Your task to perform on an android device: change alarm snooze length Image 0: 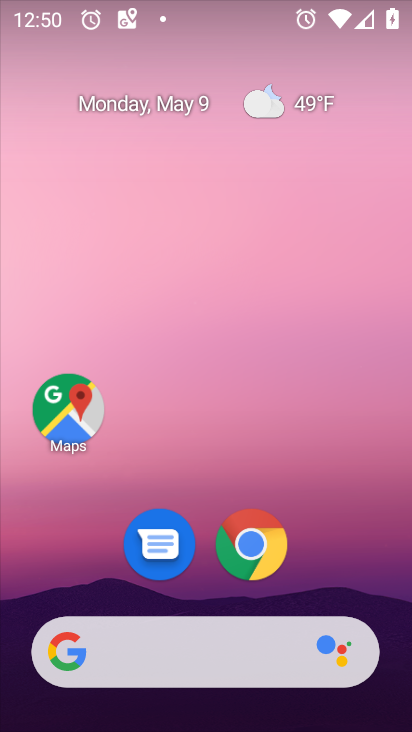
Step 0: drag from (227, 637) to (322, 28)
Your task to perform on an android device: change alarm snooze length Image 1: 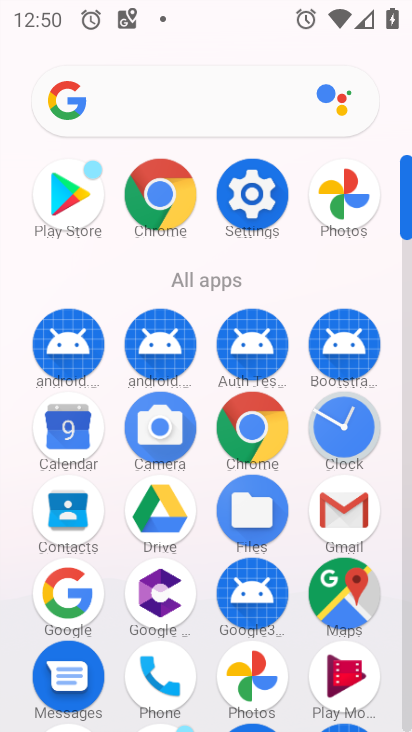
Step 1: click (335, 431)
Your task to perform on an android device: change alarm snooze length Image 2: 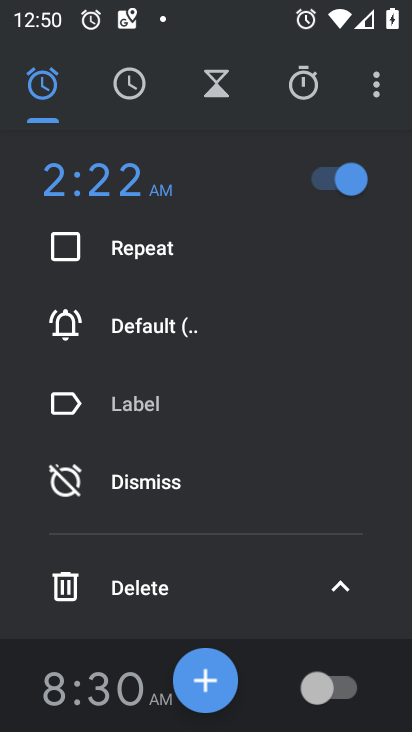
Step 2: click (379, 81)
Your task to perform on an android device: change alarm snooze length Image 3: 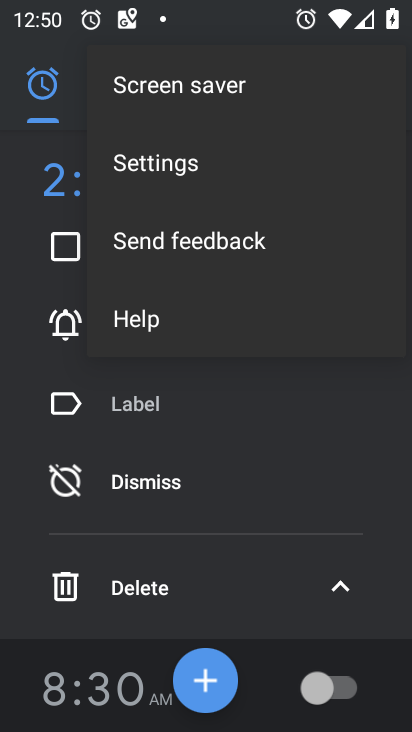
Step 3: click (178, 176)
Your task to perform on an android device: change alarm snooze length Image 4: 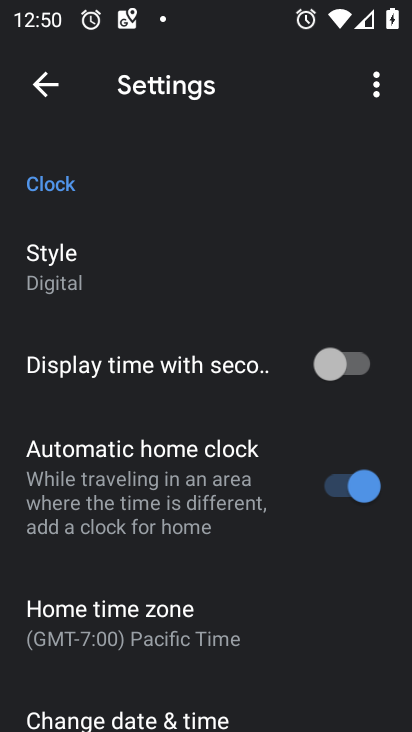
Step 4: drag from (232, 677) to (284, 136)
Your task to perform on an android device: change alarm snooze length Image 5: 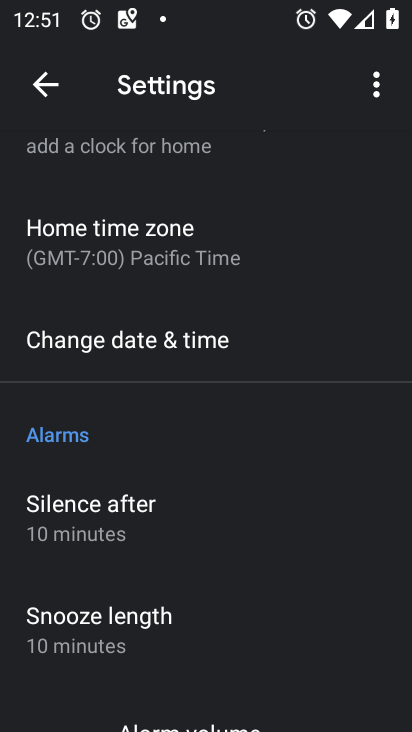
Step 5: click (193, 601)
Your task to perform on an android device: change alarm snooze length Image 6: 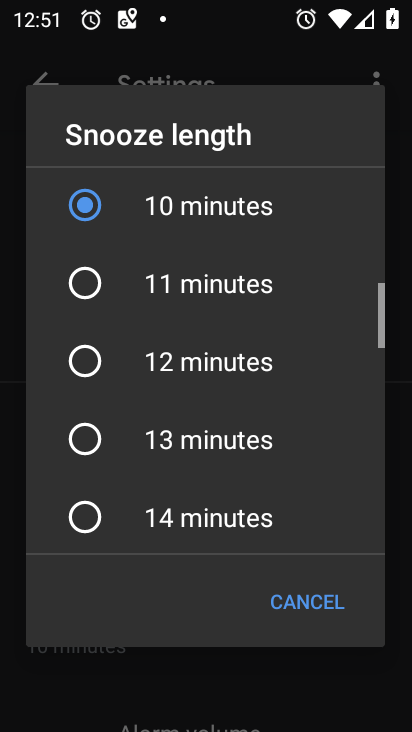
Step 6: click (190, 306)
Your task to perform on an android device: change alarm snooze length Image 7: 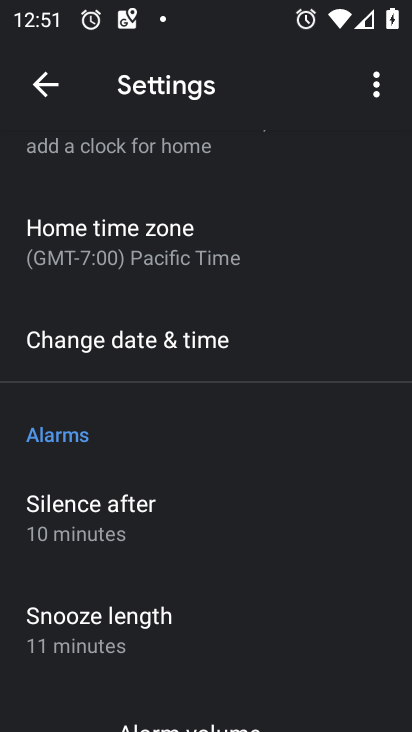
Step 7: task complete